Your task to perform on an android device: turn notification dots on Image 0: 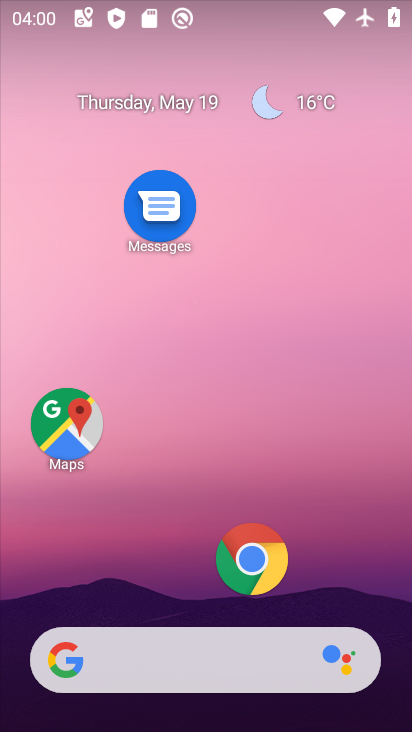
Step 0: drag from (191, 594) to (243, 172)
Your task to perform on an android device: turn notification dots on Image 1: 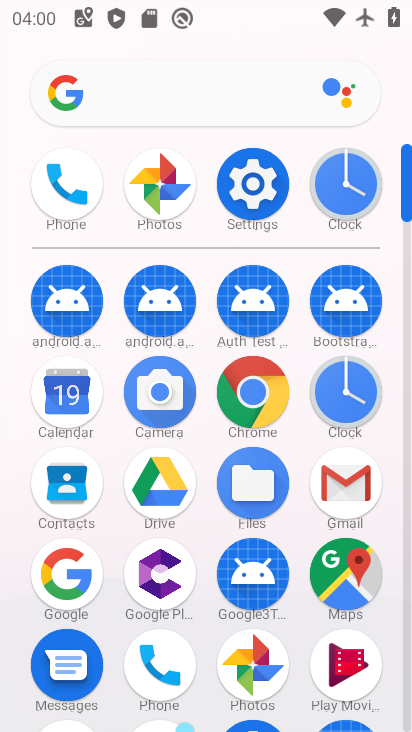
Step 1: click (246, 178)
Your task to perform on an android device: turn notification dots on Image 2: 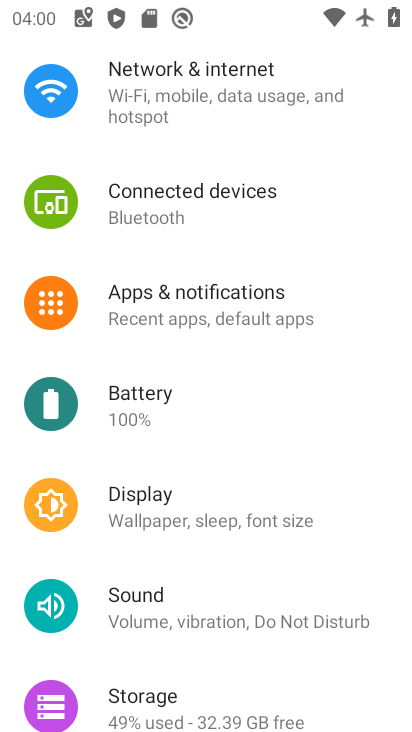
Step 2: click (211, 288)
Your task to perform on an android device: turn notification dots on Image 3: 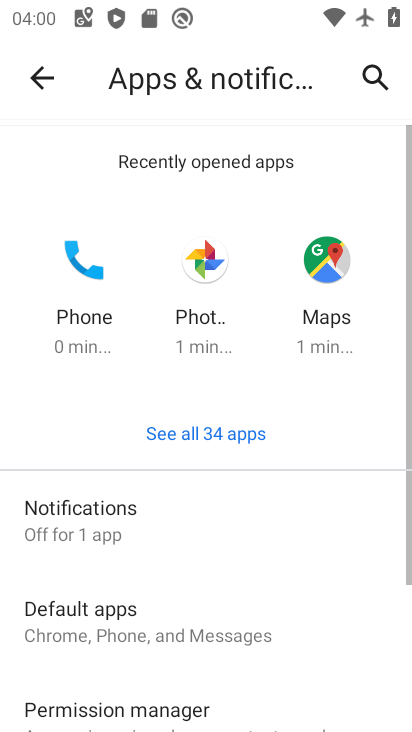
Step 3: drag from (219, 637) to (260, 340)
Your task to perform on an android device: turn notification dots on Image 4: 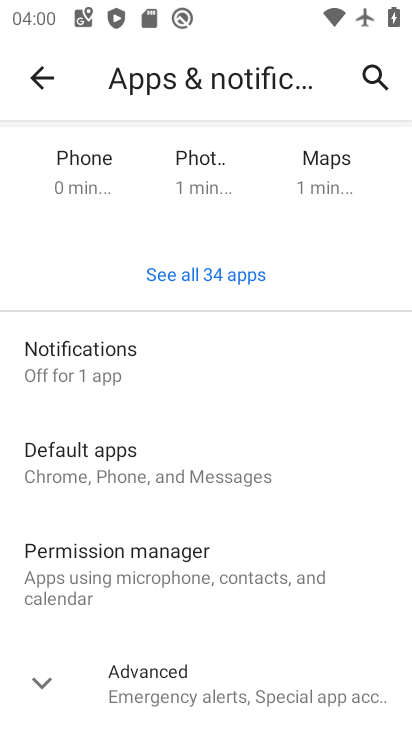
Step 4: click (174, 369)
Your task to perform on an android device: turn notification dots on Image 5: 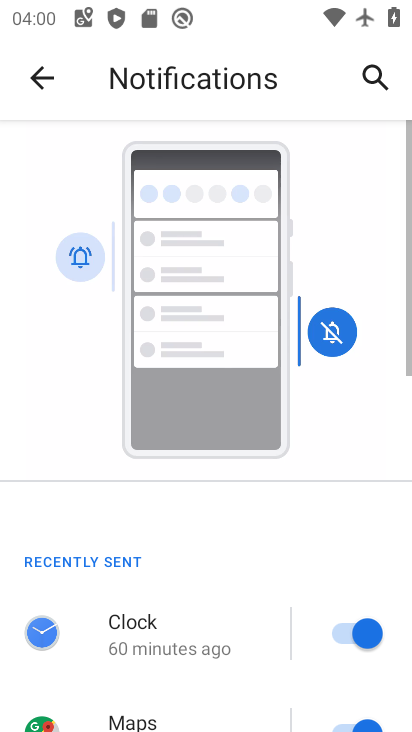
Step 5: drag from (223, 600) to (268, 246)
Your task to perform on an android device: turn notification dots on Image 6: 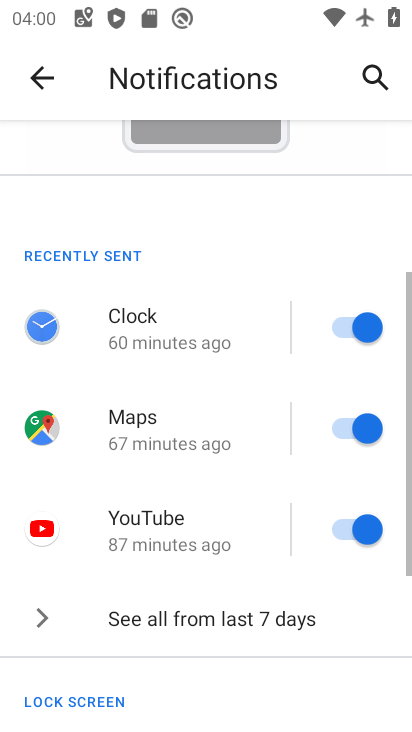
Step 6: drag from (268, 549) to (284, 247)
Your task to perform on an android device: turn notification dots on Image 7: 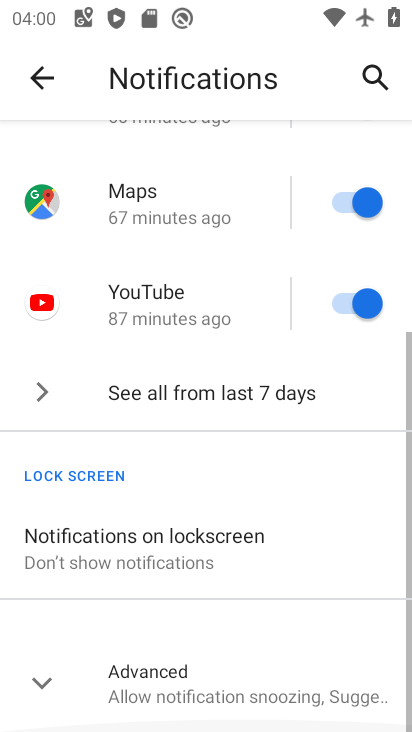
Step 7: drag from (256, 552) to (256, 294)
Your task to perform on an android device: turn notification dots on Image 8: 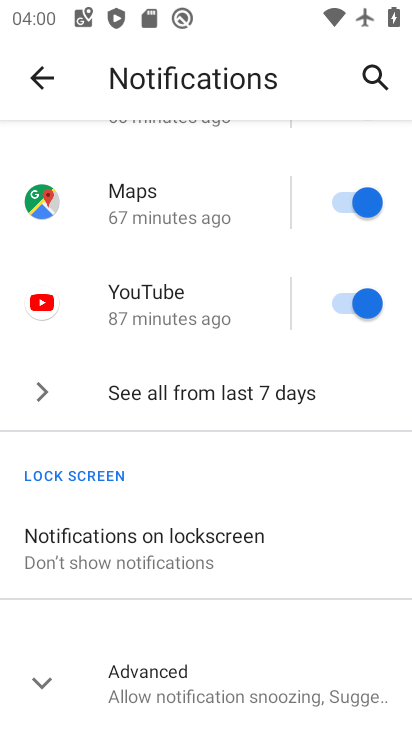
Step 8: click (208, 663)
Your task to perform on an android device: turn notification dots on Image 9: 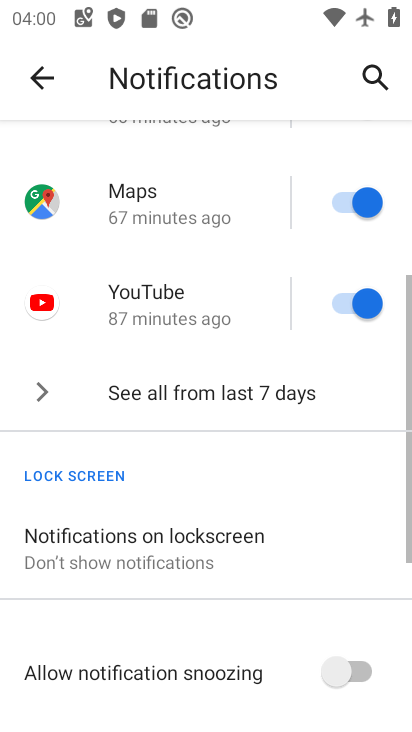
Step 9: drag from (217, 663) to (279, 305)
Your task to perform on an android device: turn notification dots on Image 10: 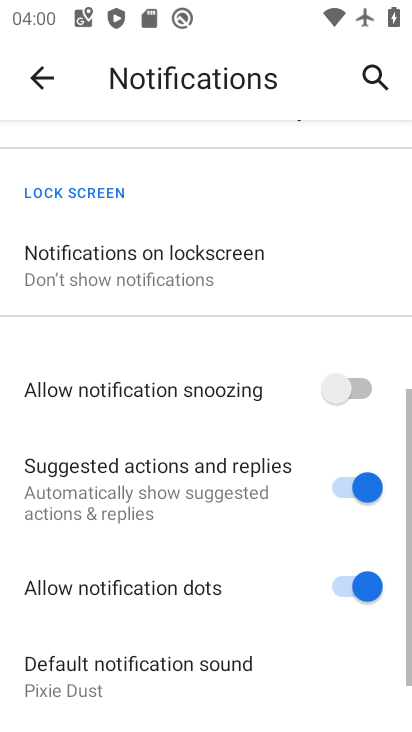
Step 10: drag from (268, 523) to (297, 267)
Your task to perform on an android device: turn notification dots on Image 11: 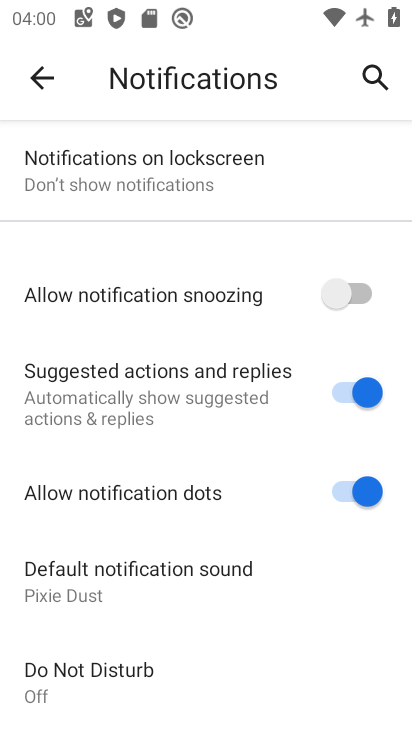
Step 11: click (336, 491)
Your task to perform on an android device: turn notification dots on Image 12: 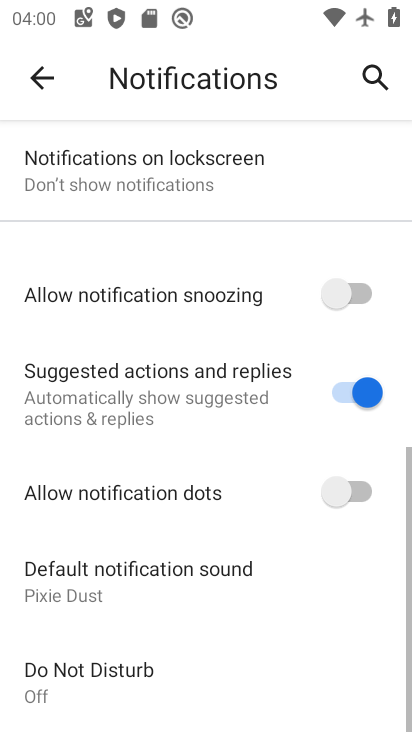
Step 12: click (367, 485)
Your task to perform on an android device: turn notification dots on Image 13: 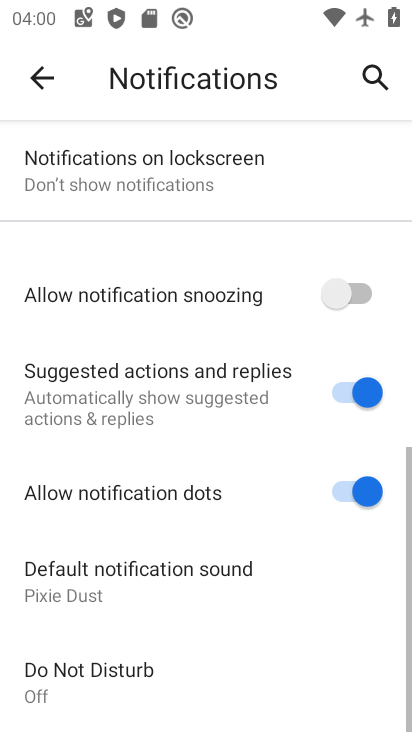
Step 13: task complete